Your task to perform on an android device: delete location history Image 0: 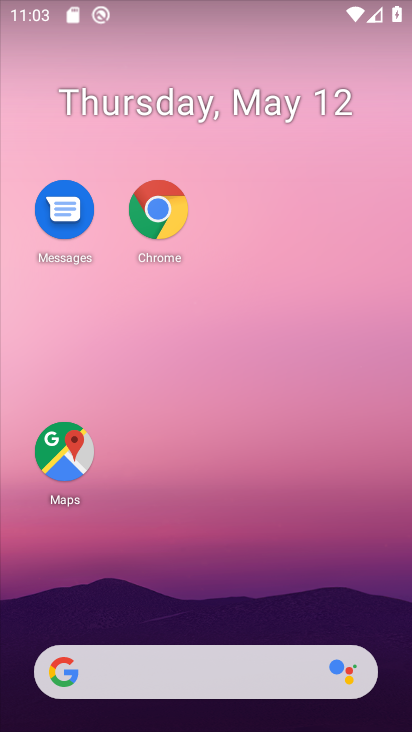
Step 0: drag from (176, 597) to (127, 2)
Your task to perform on an android device: delete location history Image 1: 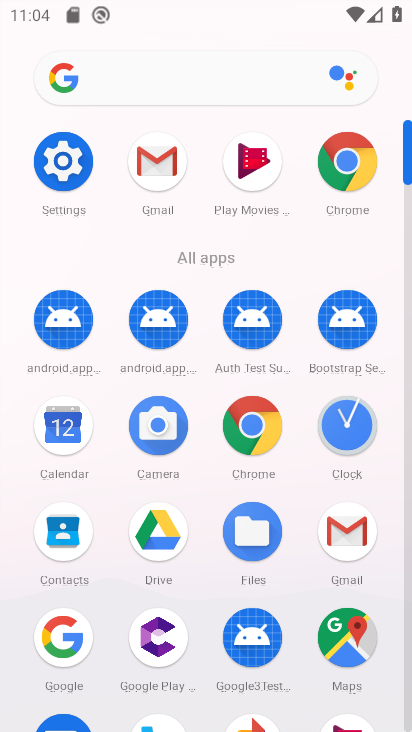
Step 1: drag from (169, 677) to (197, 219)
Your task to perform on an android device: delete location history Image 2: 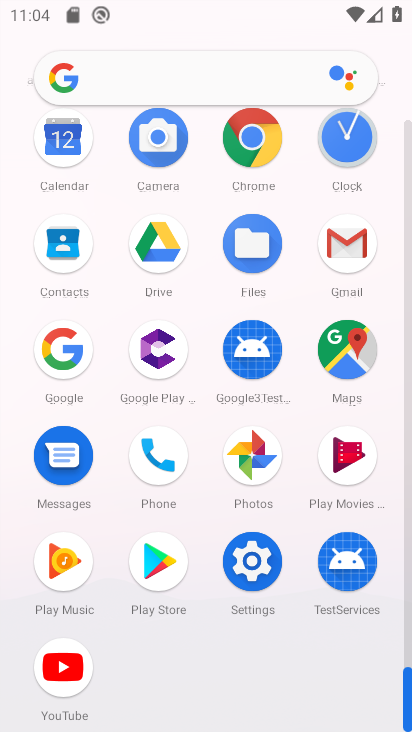
Step 2: click (340, 362)
Your task to perform on an android device: delete location history Image 3: 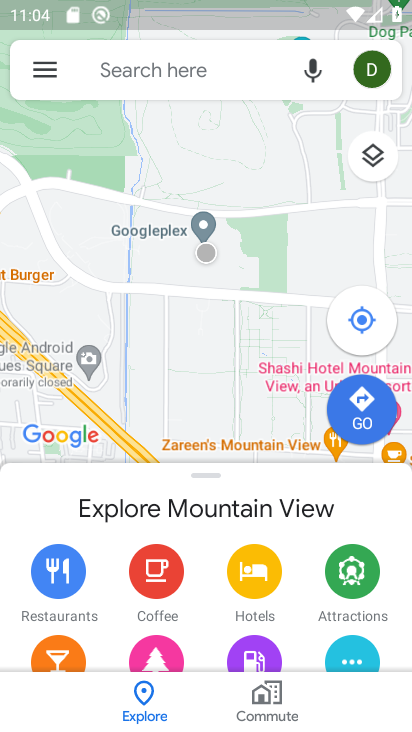
Step 3: click (53, 71)
Your task to perform on an android device: delete location history Image 4: 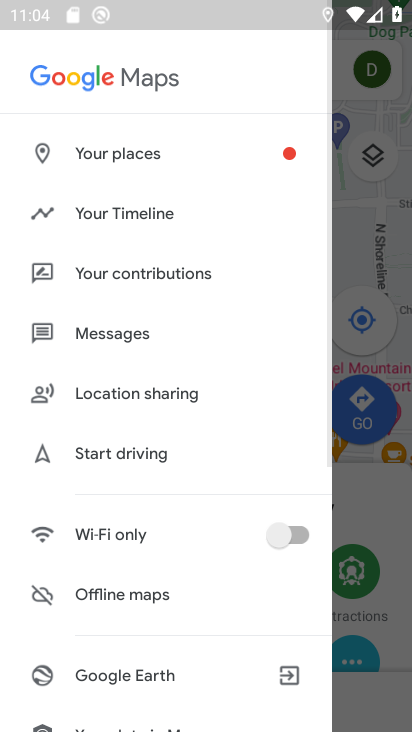
Step 4: click (127, 218)
Your task to perform on an android device: delete location history Image 5: 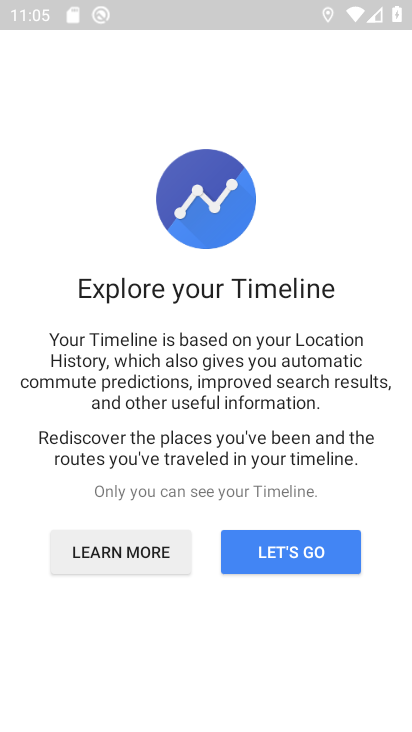
Step 5: click (287, 527)
Your task to perform on an android device: delete location history Image 6: 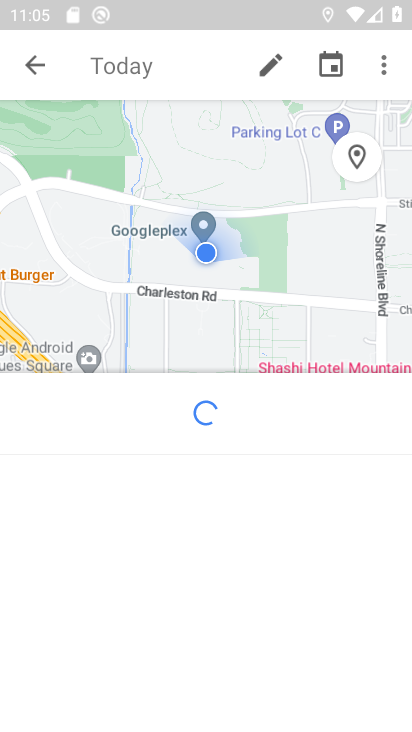
Step 6: click (266, 555)
Your task to perform on an android device: delete location history Image 7: 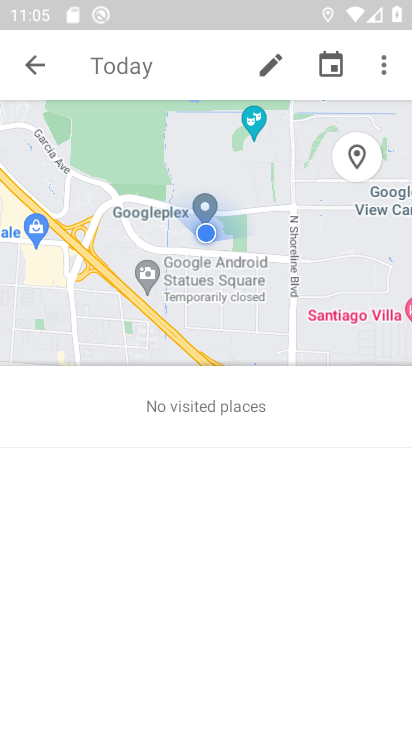
Step 7: click (383, 62)
Your task to perform on an android device: delete location history Image 8: 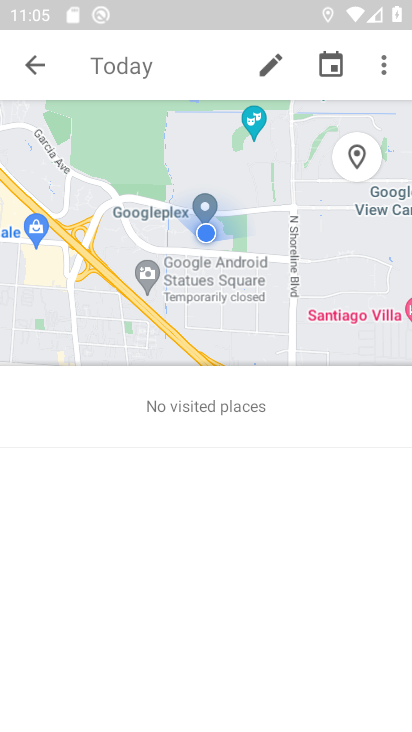
Step 8: click (385, 65)
Your task to perform on an android device: delete location history Image 9: 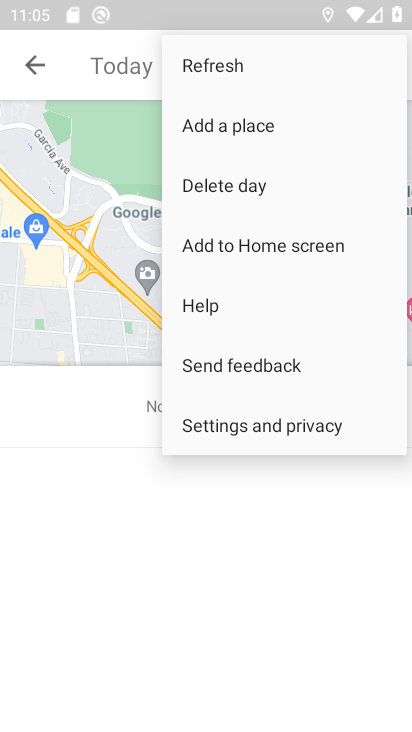
Step 9: click (194, 431)
Your task to perform on an android device: delete location history Image 10: 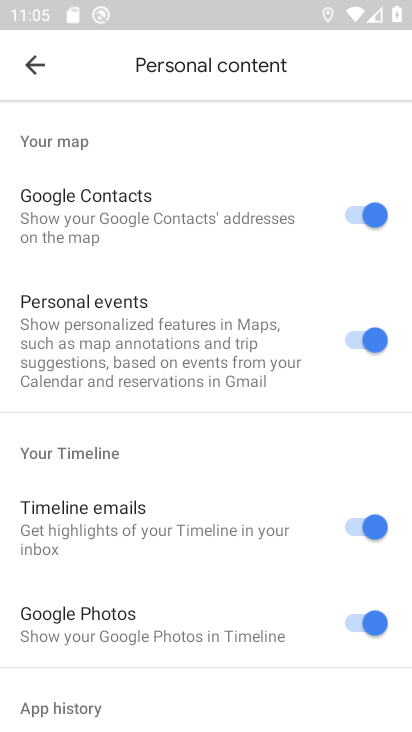
Step 10: drag from (144, 629) to (146, 250)
Your task to perform on an android device: delete location history Image 11: 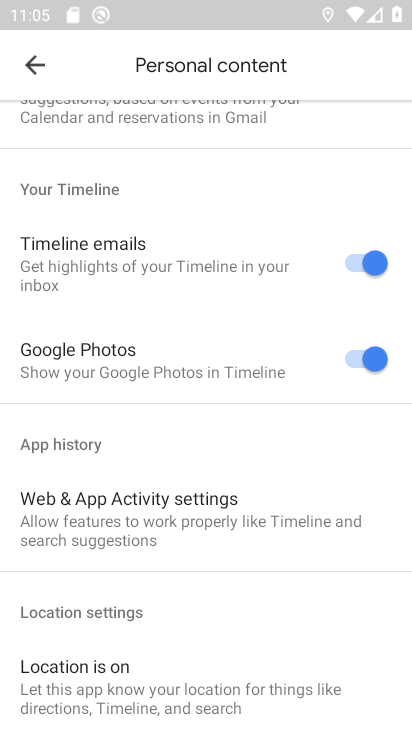
Step 11: drag from (180, 623) to (180, 233)
Your task to perform on an android device: delete location history Image 12: 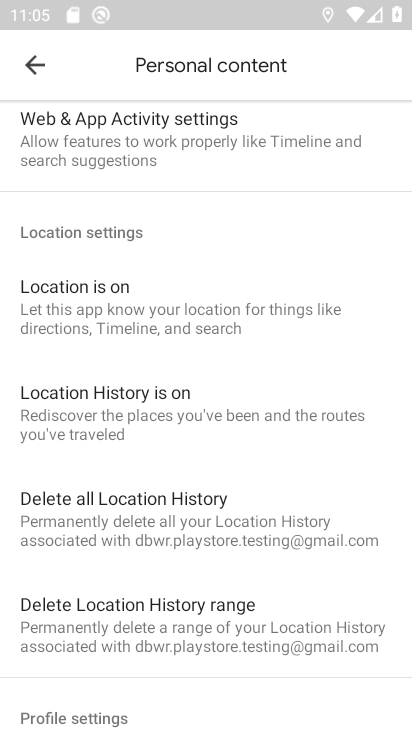
Step 12: click (117, 534)
Your task to perform on an android device: delete location history Image 13: 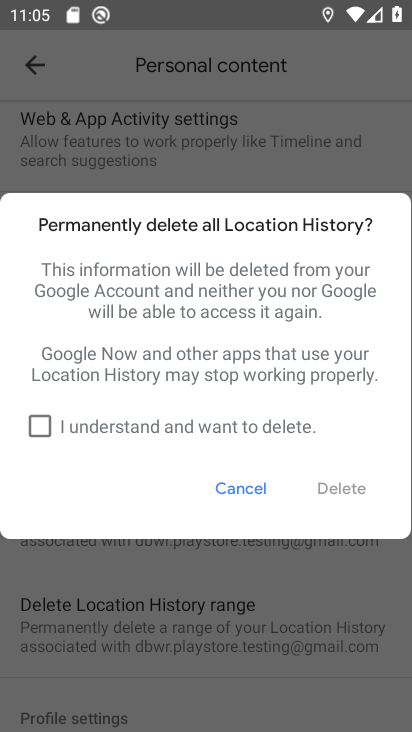
Step 13: click (34, 423)
Your task to perform on an android device: delete location history Image 14: 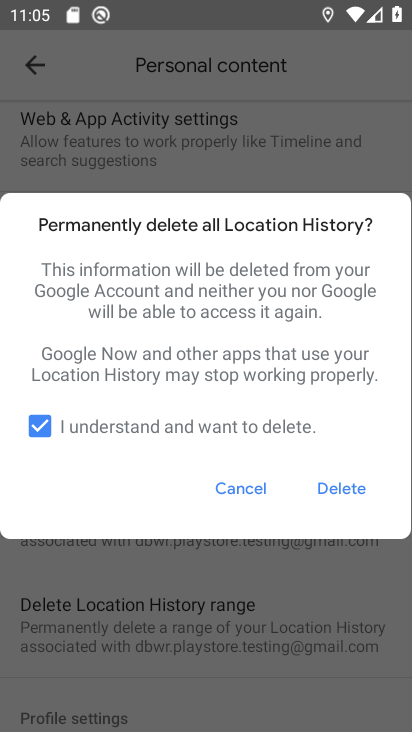
Step 14: click (334, 486)
Your task to perform on an android device: delete location history Image 15: 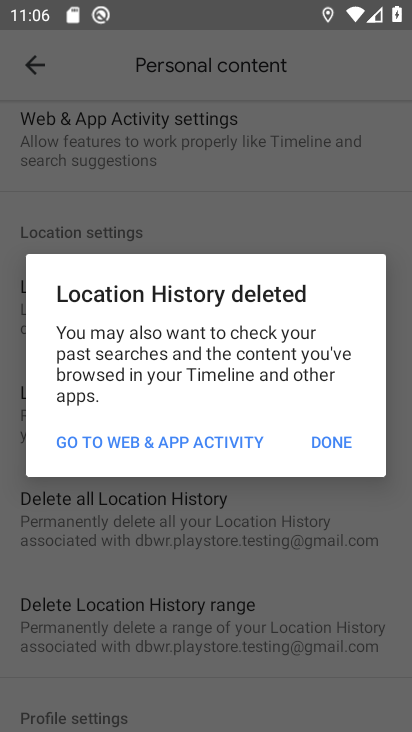
Step 15: click (324, 443)
Your task to perform on an android device: delete location history Image 16: 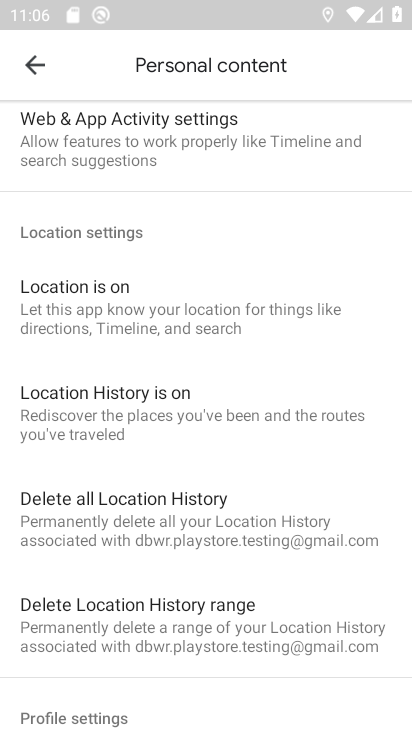
Step 16: task complete